Your task to perform on an android device: Search for flights from Sydney to Buenos aires Image 0: 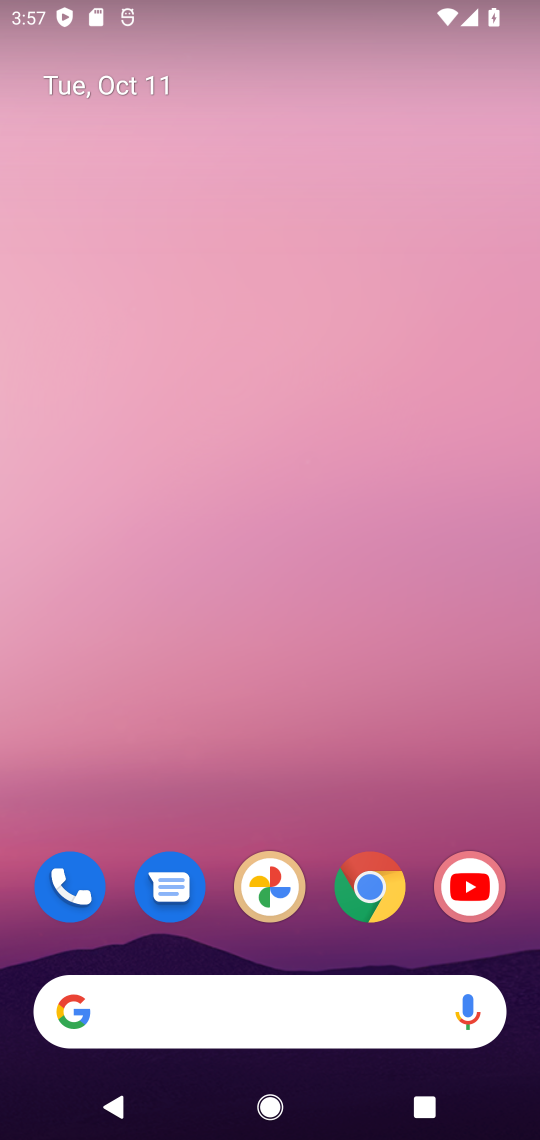
Step 0: click (377, 890)
Your task to perform on an android device: Search for flights from Sydney to Buenos aires Image 1: 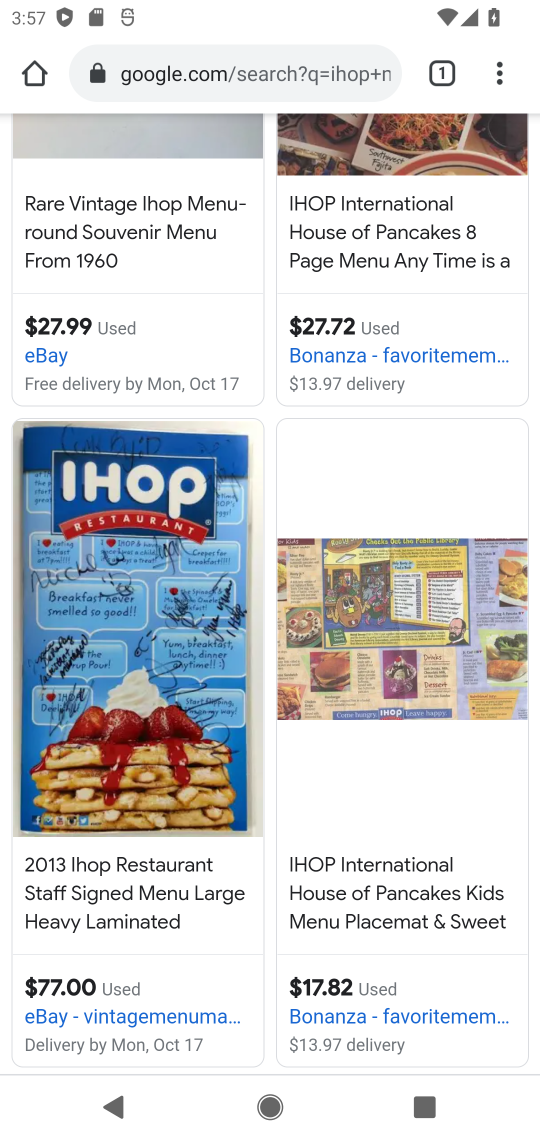
Step 1: click (222, 58)
Your task to perform on an android device: Search for flights from Sydney to Buenos aires Image 2: 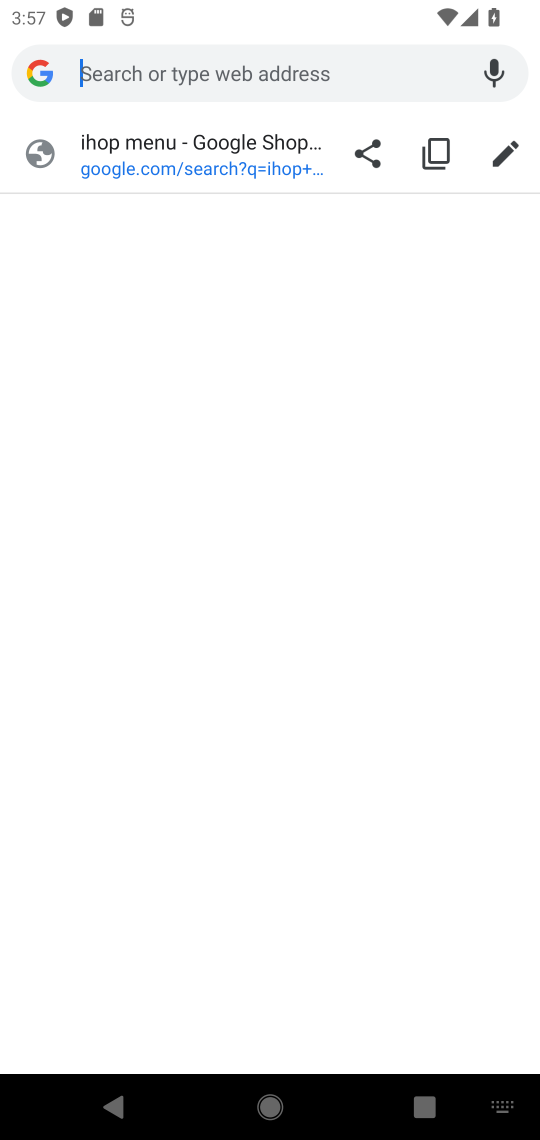
Step 2: type "Sydney to Buenos aires"
Your task to perform on an android device: Search for flights from Sydney to Buenos aires Image 3: 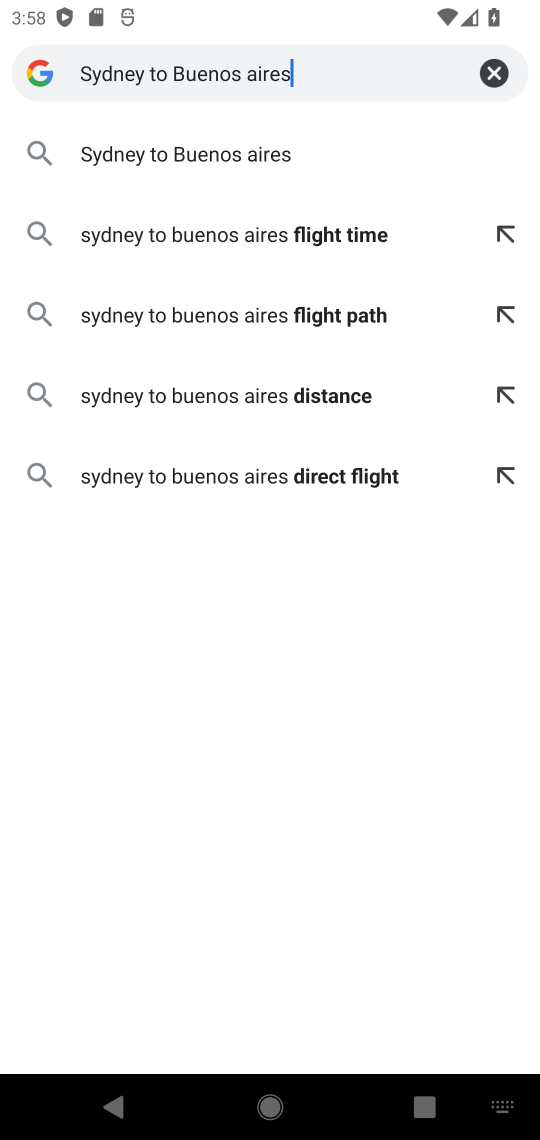
Step 3: type " flights"
Your task to perform on an android device: Search for flights from Sydney to Buenos aires Image 4: 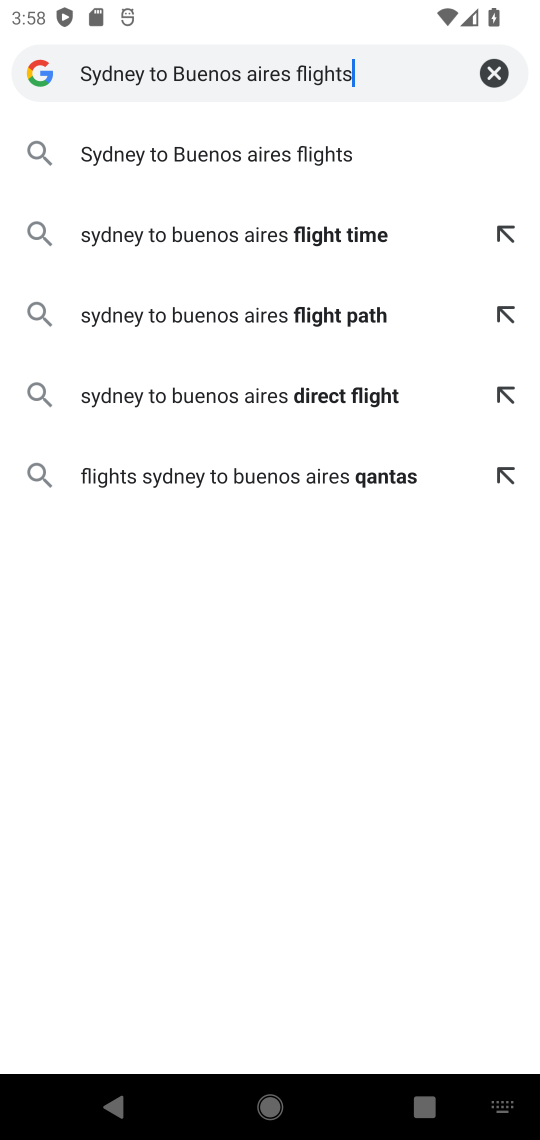
Step 4: click (135, 156)
Your task to perform on an android device: Search for flights from Sydney to Buenos aires Image 5: 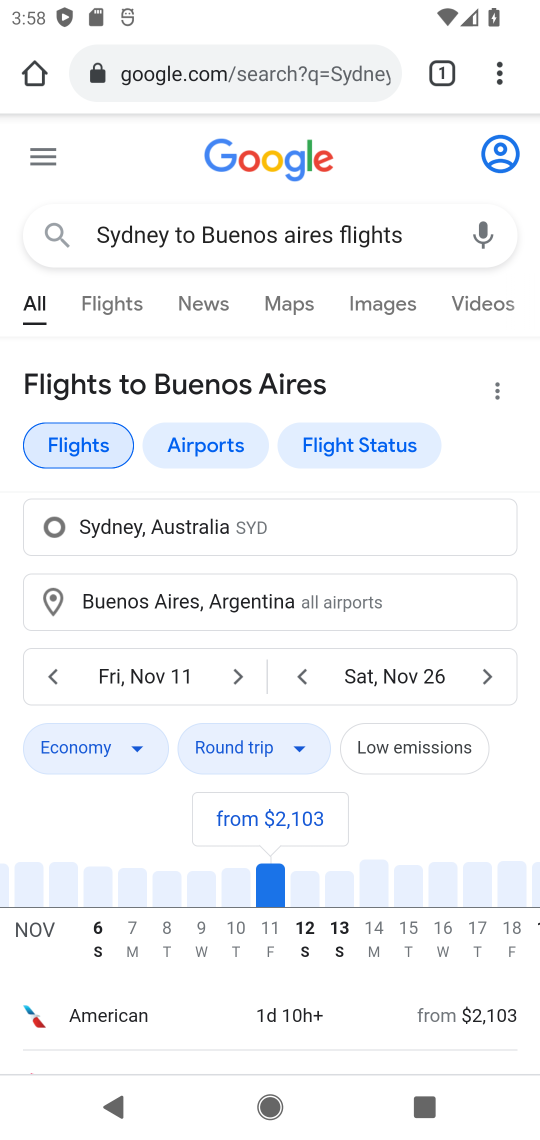
Step 5: click (112, 306)
Your task to perform on an android device: Search for flights from Sydney to Buenos aires Image 6: 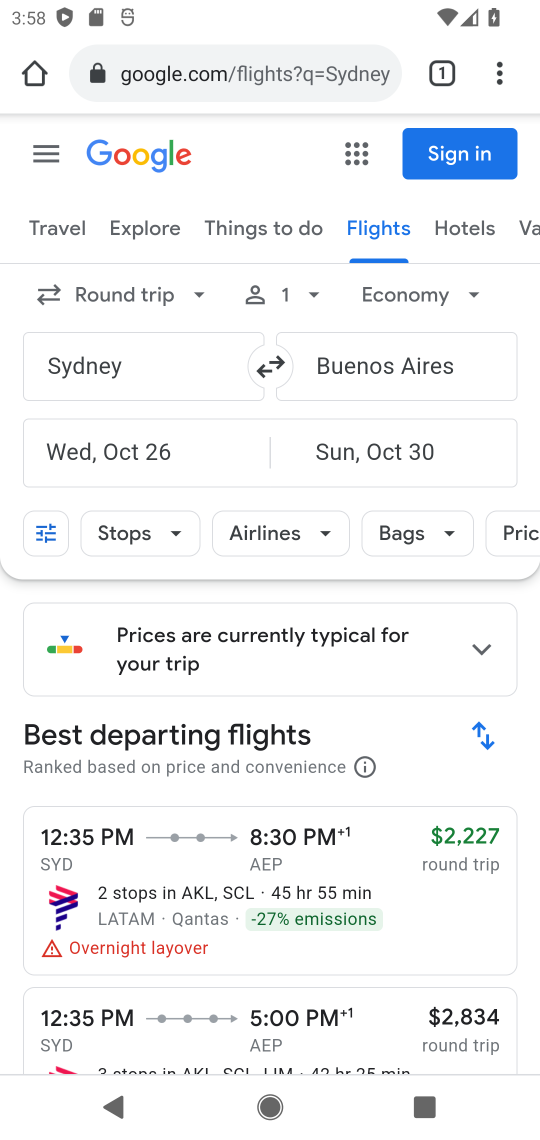
Step 6: task complete